Your task to perform on an android device: toggle sleep mode Image 0: 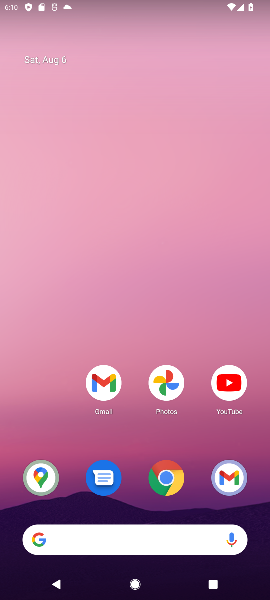
Step 0: drag from (146, 503) to (121, 29)
Your task to perform on an android device: toggle sleep mode Image 1: 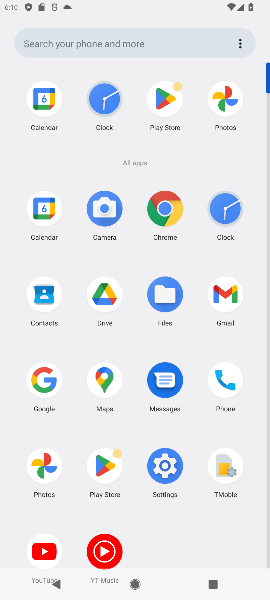
Step 1: click (165, 466)
Your task to perform on an android device: toggle sleep mode Image 2: 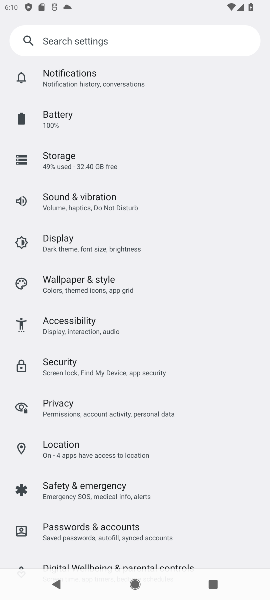
Step 2: click (69, 250)
Your task to perform on an android device: toggle sleep mode Image 3: 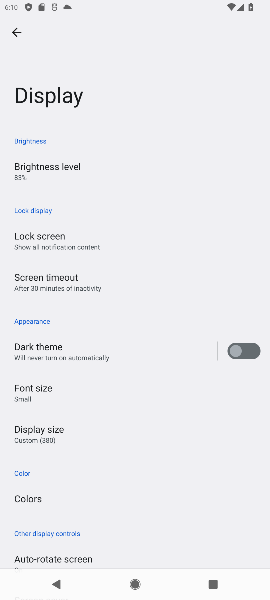
Step 3: task complete